Your task to perform on an android device: change the clock style Image 0: 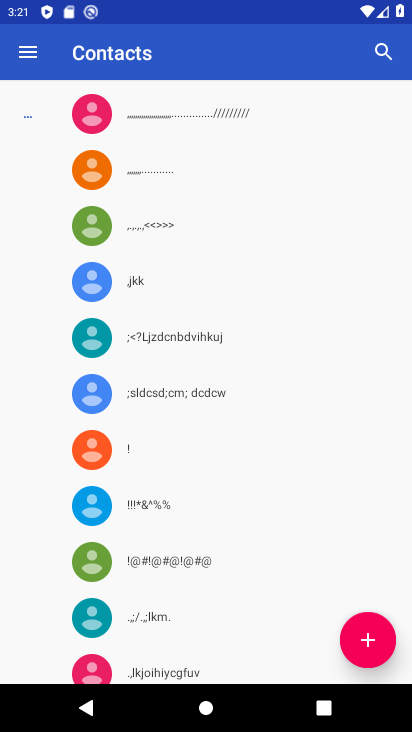
Step 0: press home button
Your task to perform on an android device: change the clock style Image 1: 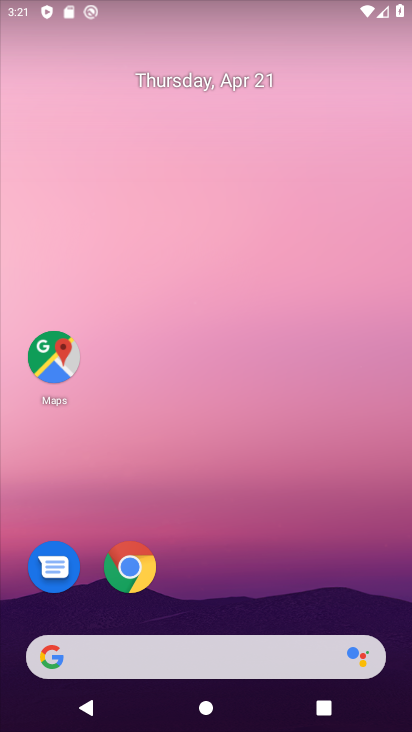
Step 1: drag from (221, 598) to (268, 22)
Your task to perform on an android device: change the clock style Image 2: 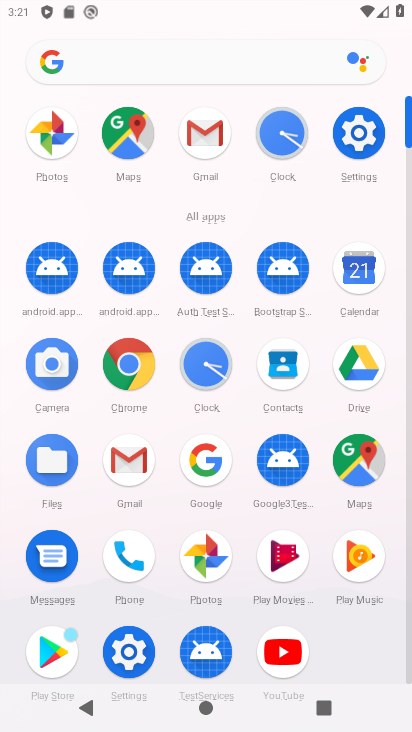
Step 2: click (279, 126)
Your task to perform on an android device: change the clock style Image 3: 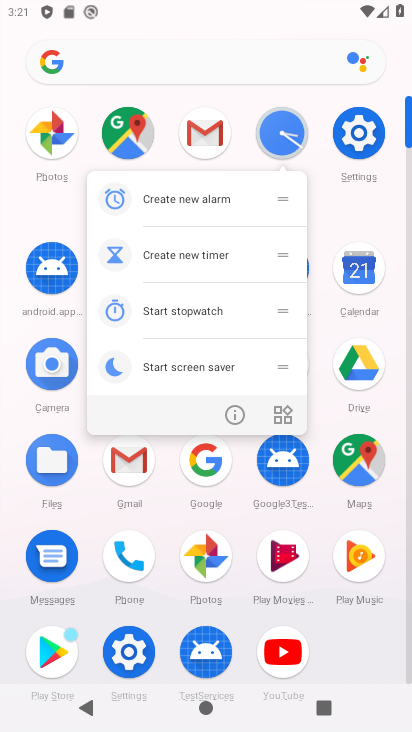
Step 3: click (283, 131)
Your task to perform on an android device: change the clock style Image 4: 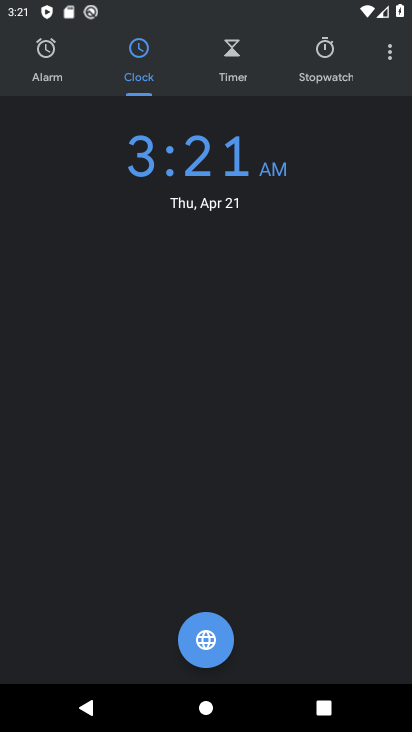
Step 4: click (390, 51)
Your task to perform on an android device: change the clock style Image 5: 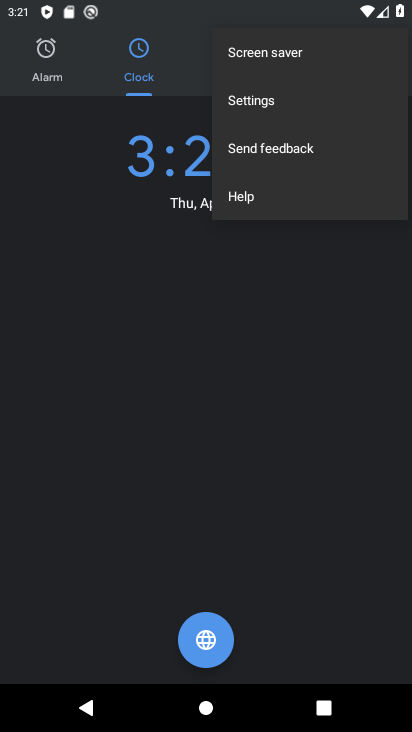
Step 5: click (287, 99)
Your task to perform on an android device: change the clock style Image 6: 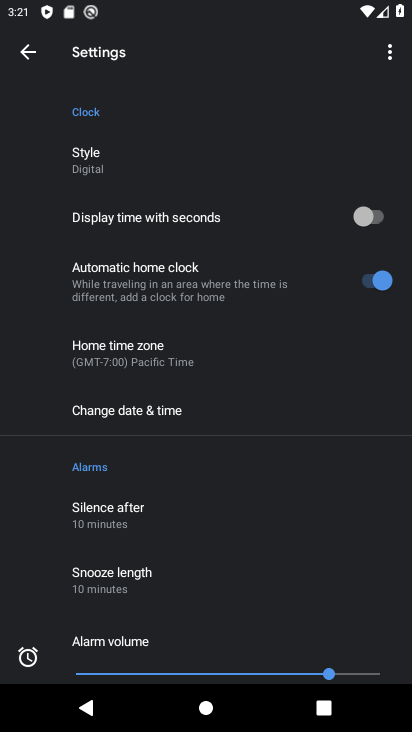
Step 6: click (121, 159)
Your task to perform on an android device: change the clock style Image 7: 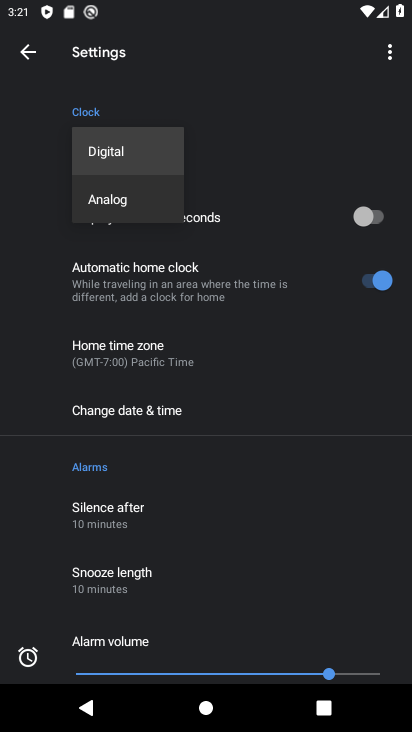
Step 7: click (146, 203)
Your task to perform on an android device: change the clock style Image 8: 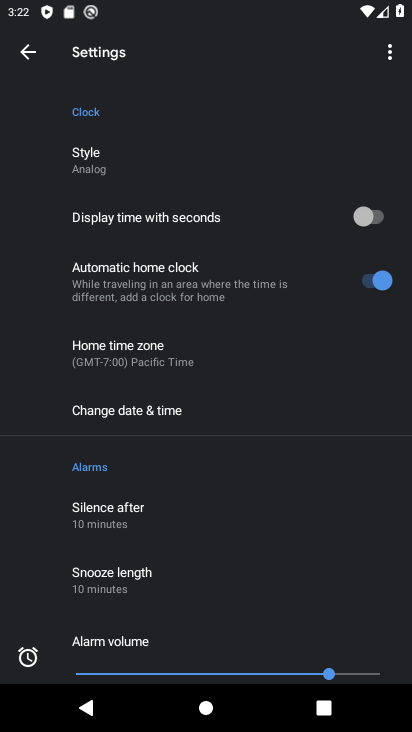
Step 8: task complete